Your task to perform on an android device: open app "Fetch Rewards" (install if not already installed), go to login, and select forgot password Image 0: 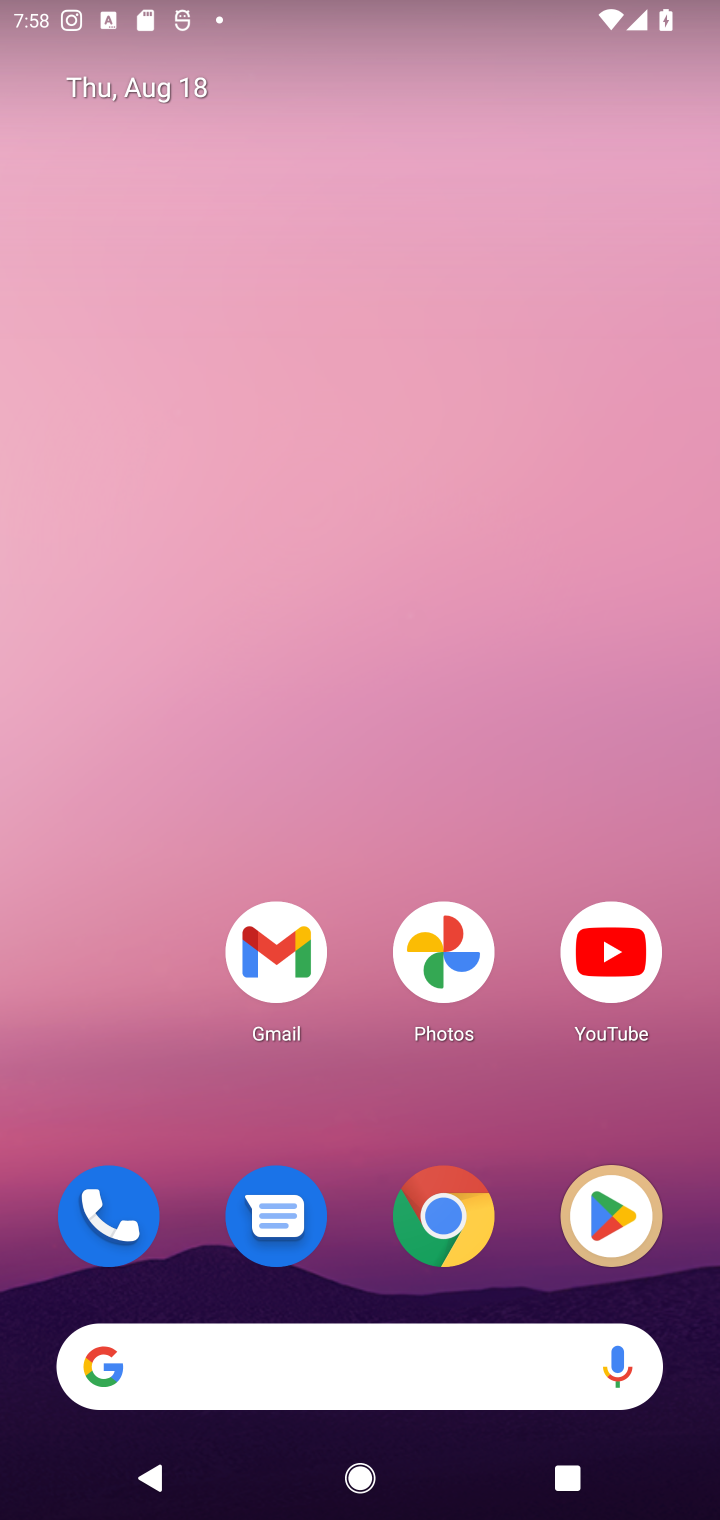
Step 0: click (610, 1207)
Your task to perform on an android device: open app "Fetch Rewards" (install if not already installed), go to login, and select forgot password Image 1: 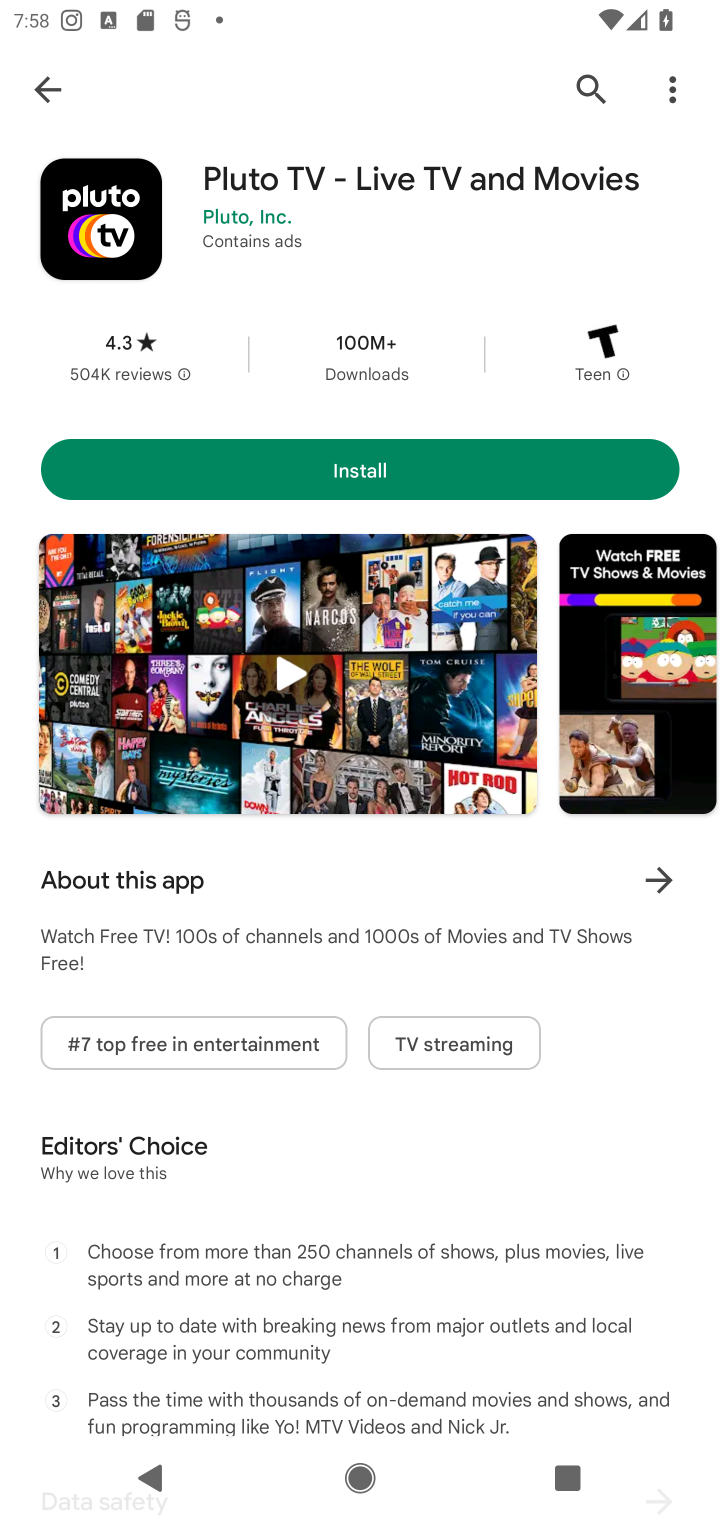
Step 1: click (568, 82)
Your task to perform on an android device: open app "Fetch Rewards" (install if not already installed), go to login, and select forgot password Image 2: 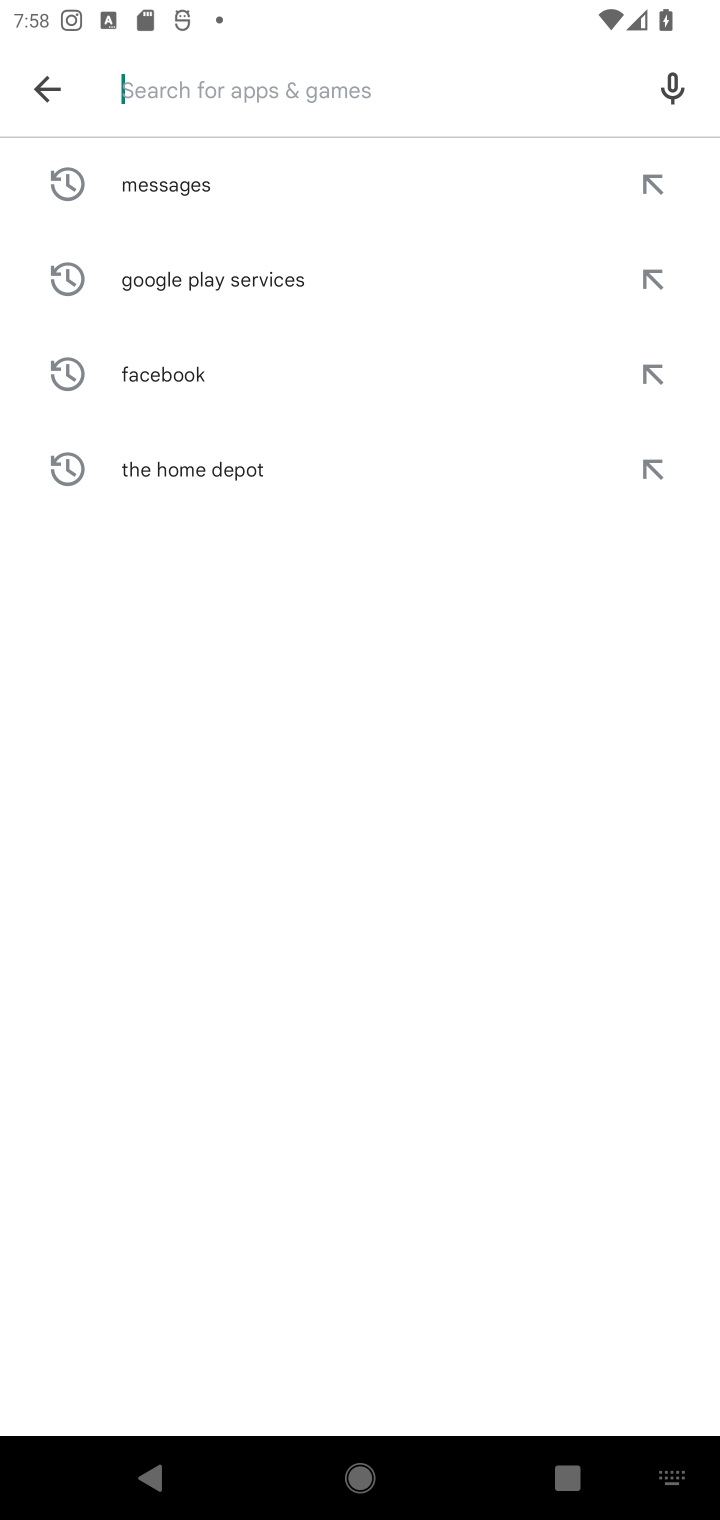
Step 2: type "Fetch Rewards"
Your task to perform on an android device: open app "Fetch Rewards" (install if not already installed), go to login, and select forgot password Image 3: 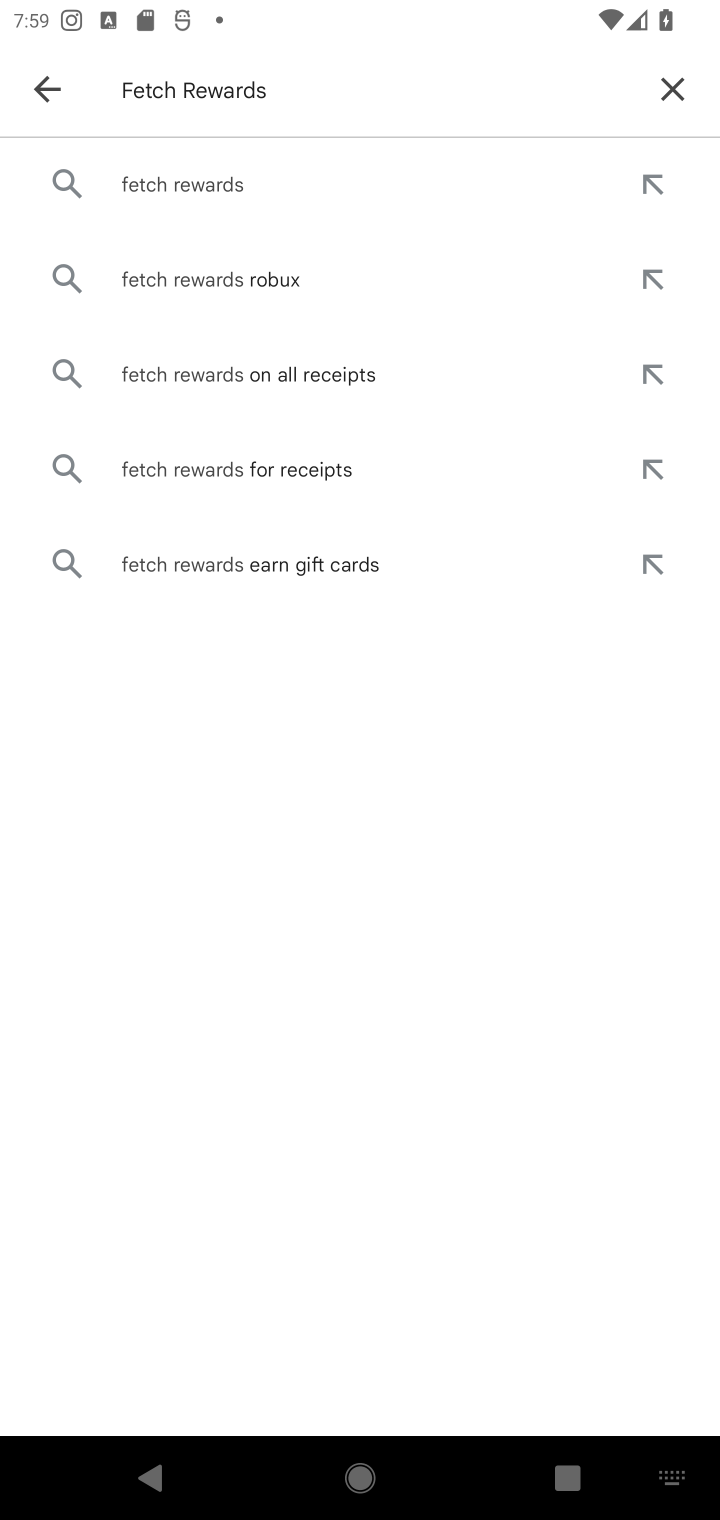
Step 3: click (202, 175)
Your task to perform on an android device: open app "Fetch Rewards" (install if not already installed), go to login, and select forgot password Image 4: 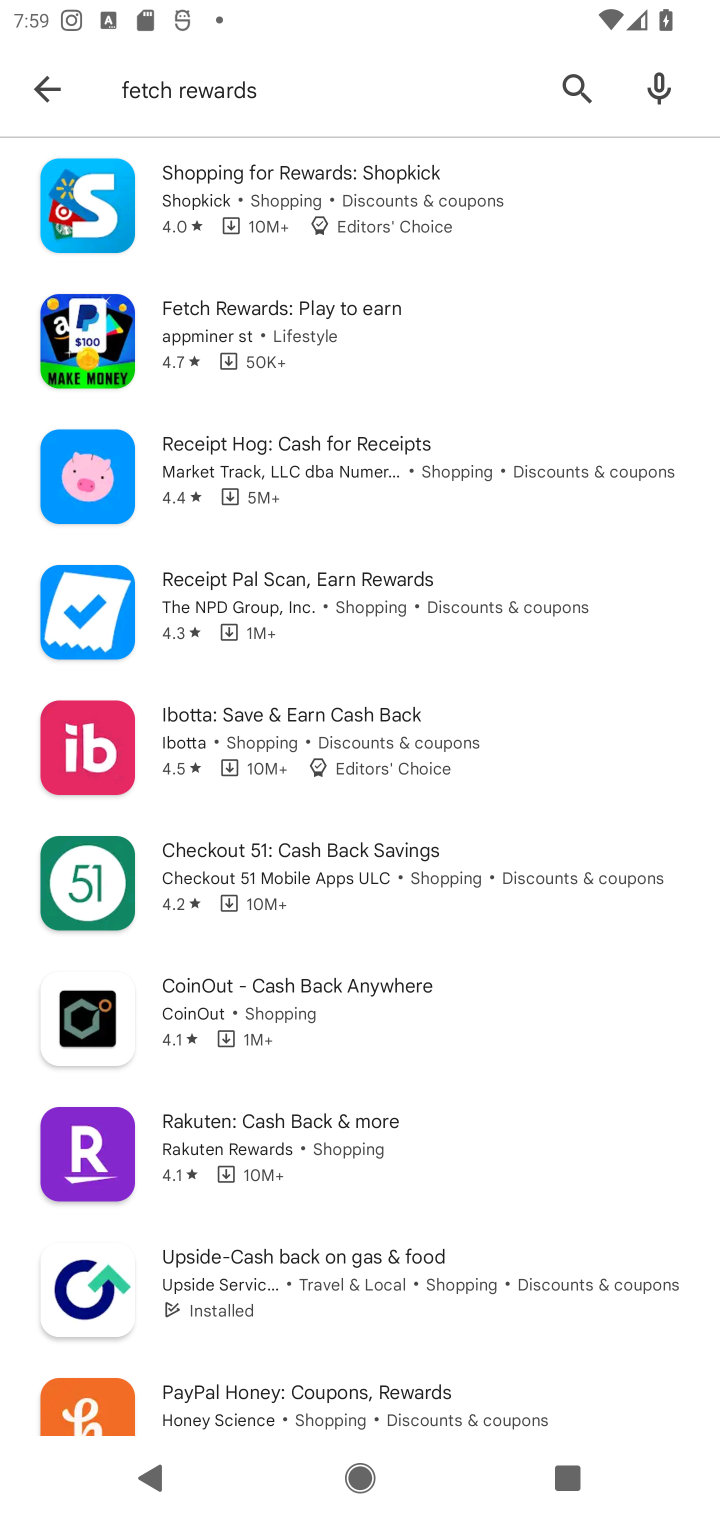
Step 4: task complete